Your task to perform on an android device: What's the weather going to be this weekend? Image 0: 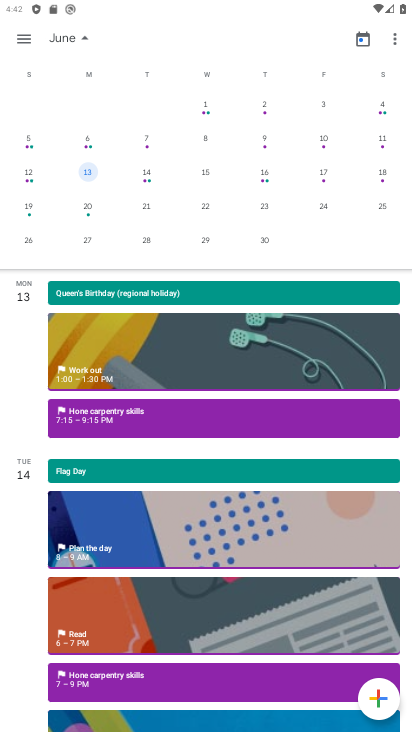
Step 0: press back button
Your task to perform on an android device: What's the weather going to be this weekend? Image 1: 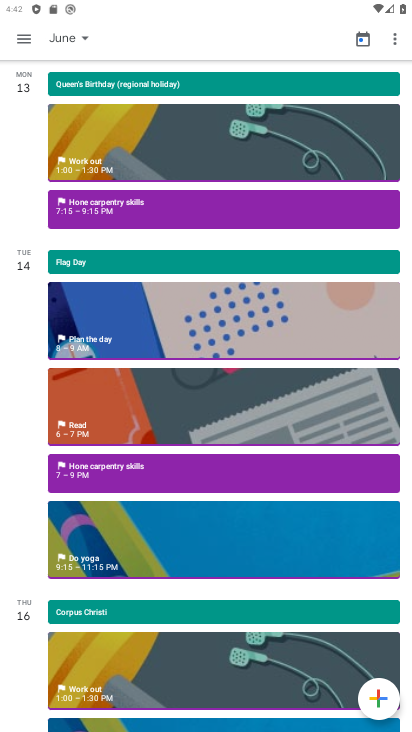
Step 1: press back button
Your task to perform on an android device: What's the weather going to be this weekend? Image 2: 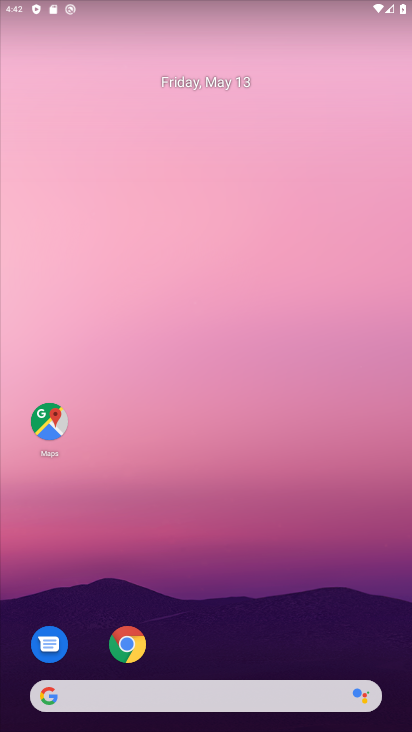
Step 2: click (180, 704)
Your task to perform on an android device: What's the weather going to be this weekend? Image 3: 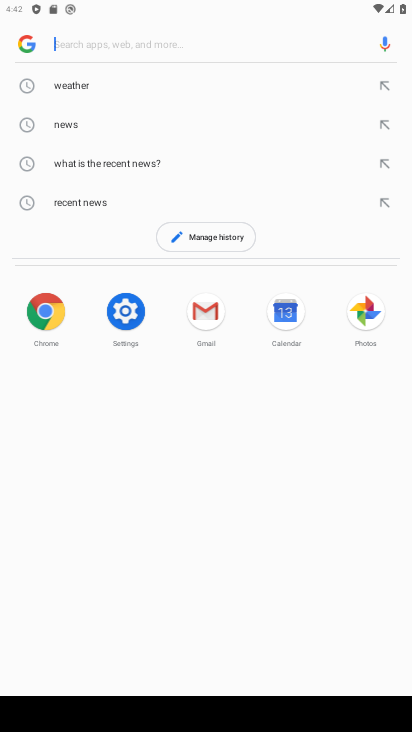
Step 3: click (76, 86)
Your task to perform on an android device: What's the weather going to be this weekend? Image 4: 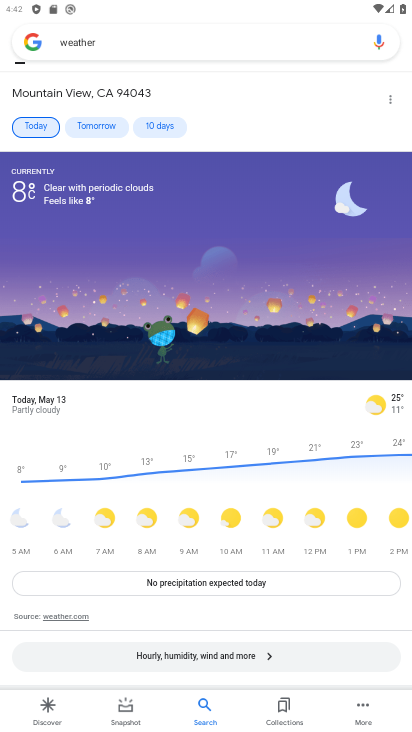
Step 4: click (153, 120)
Your task to perform on an android device: What's the weather going to be this weekend? Image 5: 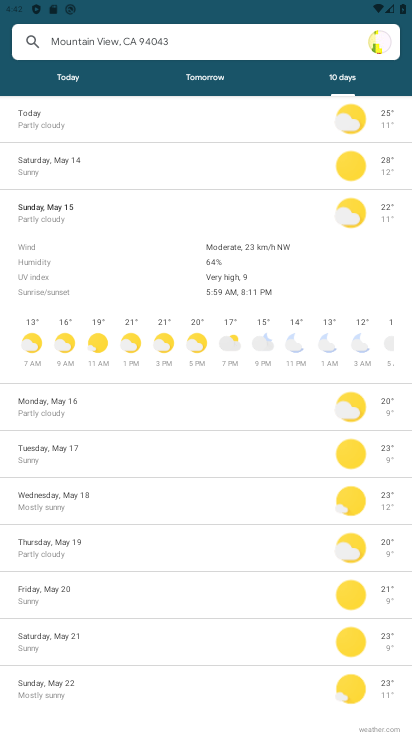
Step 5: task complete